Your task to perform on an android device: Open Google Image 0: 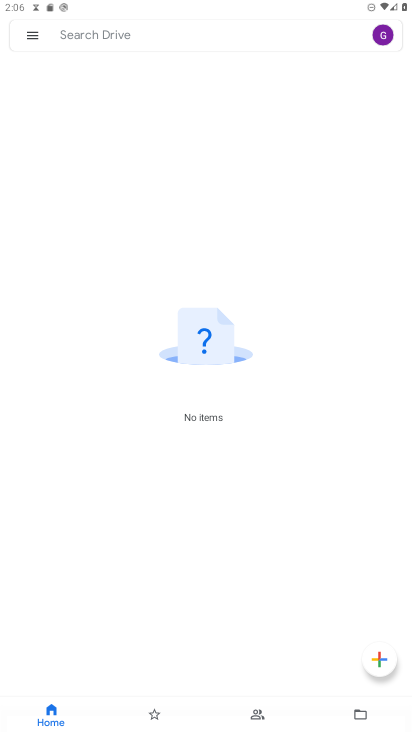
Step 0: press home button
Your task to perform on an android device: Open Google Image 1: 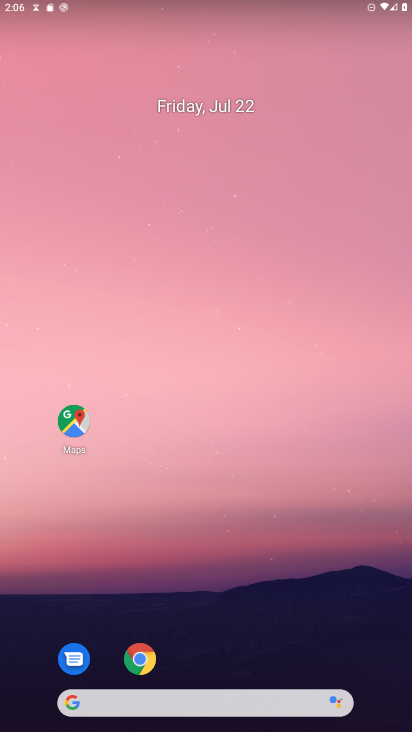
Step 1: drag from (248, 610) to (201, 88)
Your task to perform on an android device: Open Google Image 2: 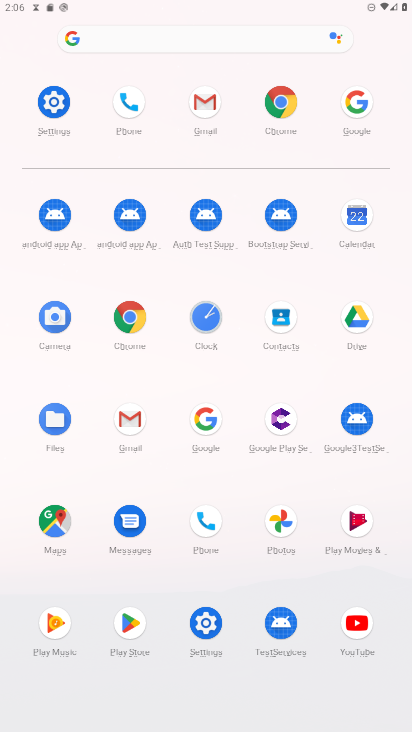
Step 2: click (223, 431)
Your task to perform on an android device: Open Google Image 3: 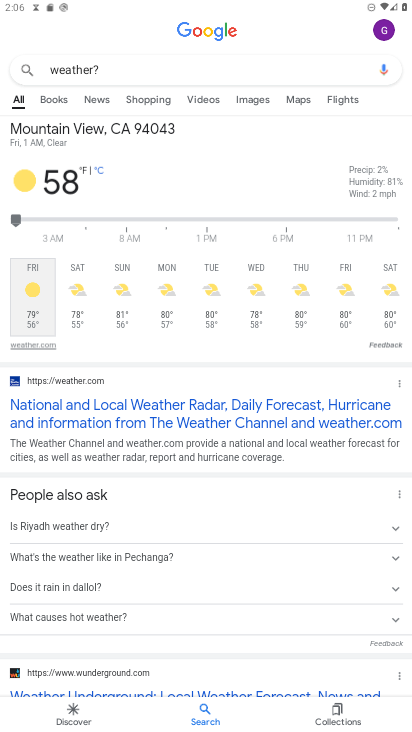
Step 3: task complete